Your task to perform on an android device: turn pop-ups on in chrome Image 0: 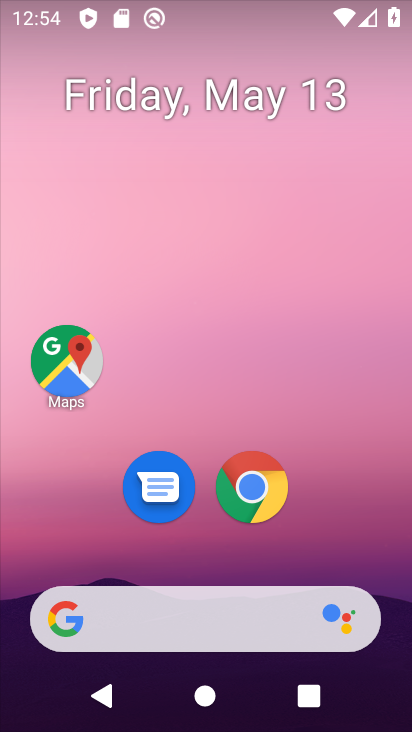
Step 0: drag from (344, 523) to (335, 173)
Your task to perform on an android device: turn pop-ups on in chrome Image 1: 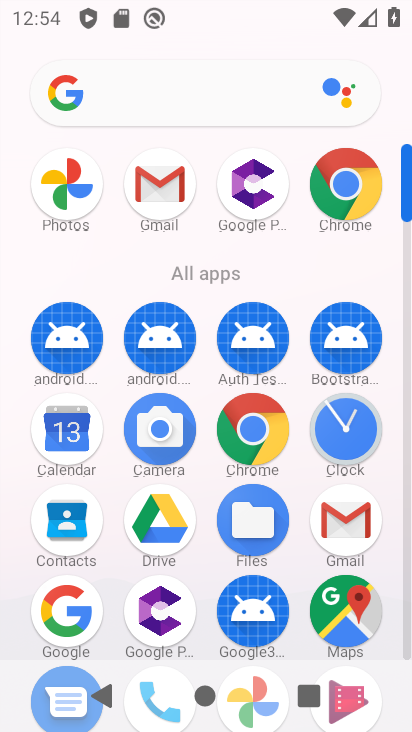
Step 1: click (344, 187)
Your task to perform on an android device: turn pop-ups on in chrome Image 2: 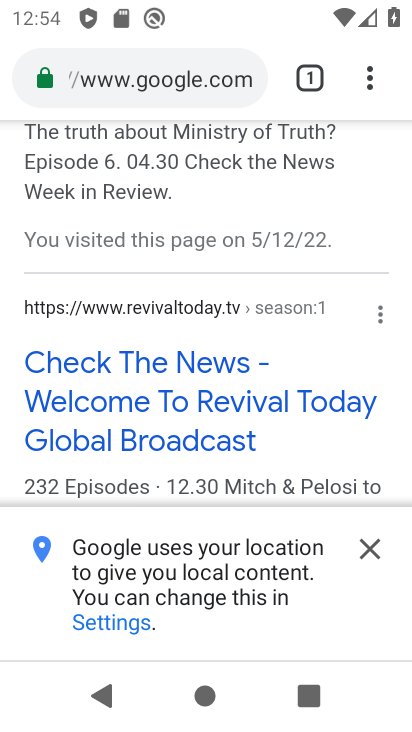
Step 2: drag from (372, 81) to (249, 542)
Your task to perform on an android device: turn pop-ups on in chrome Image 3: 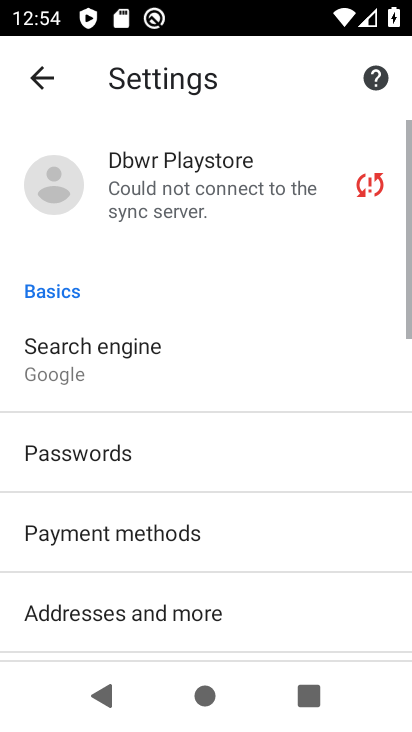
Step 3: drag from (273, 584) to (242, 319)
Your task to perform on an android device: turn pop-ups on in chrome Image 4: 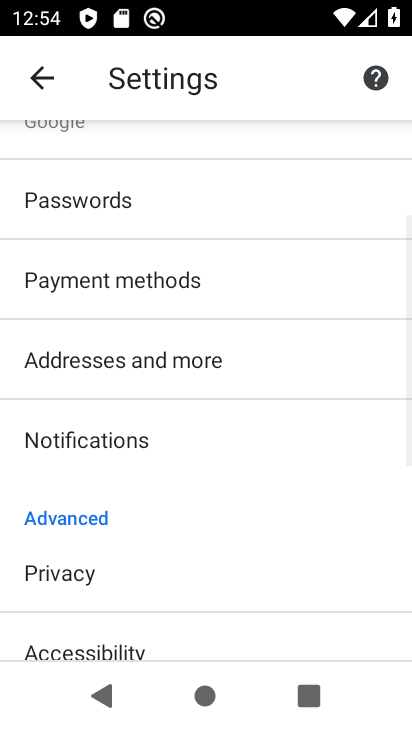
Step 4: drag from (308, 588) to (309, 292)
Your task to perform on an android device: turn pop-ups on in chrome Image 5: 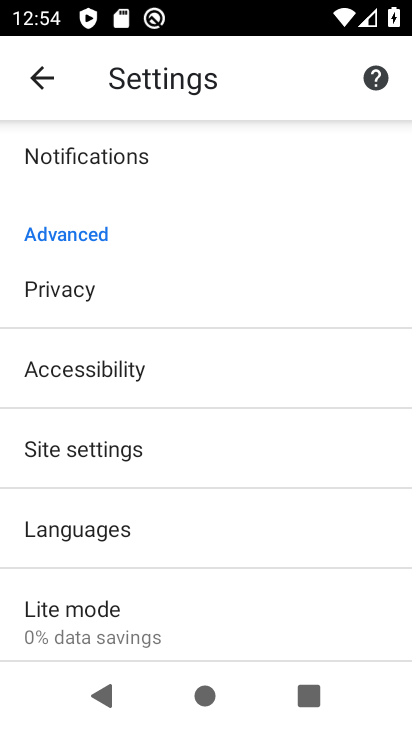
Step 5: drag from (293, 383) to (290, 313)
Your task to perform on an android device: turn pop-ups on in chrome Image 6: 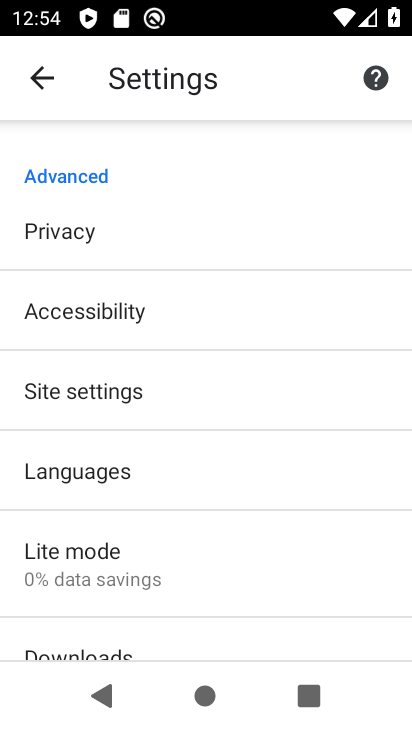
Step 6: click (178, 388)
Your task to perform on an android device: turn pop-ups on in chrome Image 7: 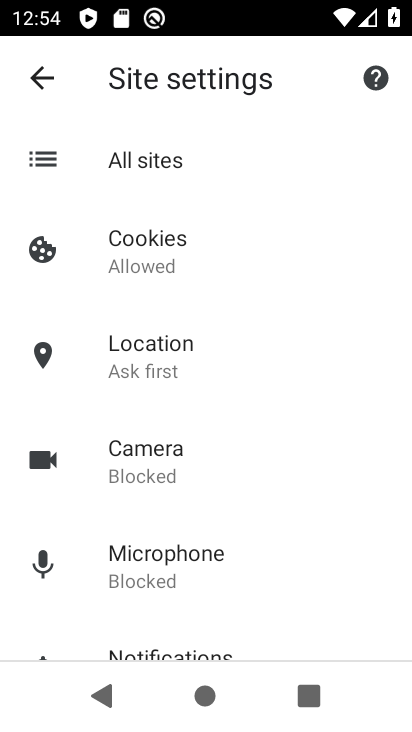
Step 7: drag from (251, 559) to (253, 266)
Your task to perform on an android device: turn pop-ups on in chrome Image 8: 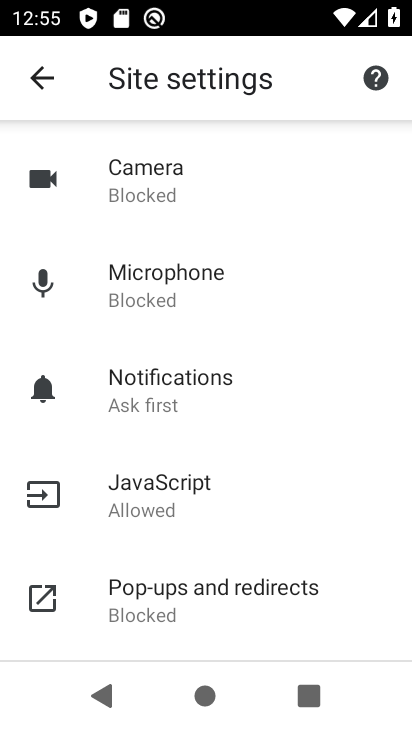
Step 8: drag from (253, 522) to (264, 277)
Your task to perform on an android device: turn pop-ups on in chrome Image 9: 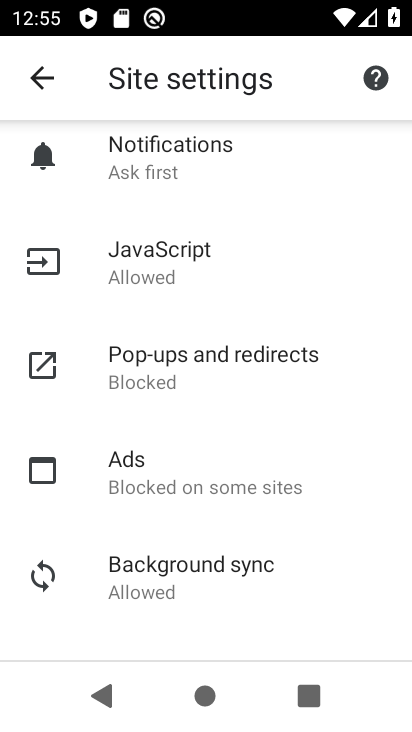
Step 9: click (236, 354)
Your task to perform on an android device: turn pop-ups on in chrome Image 10: 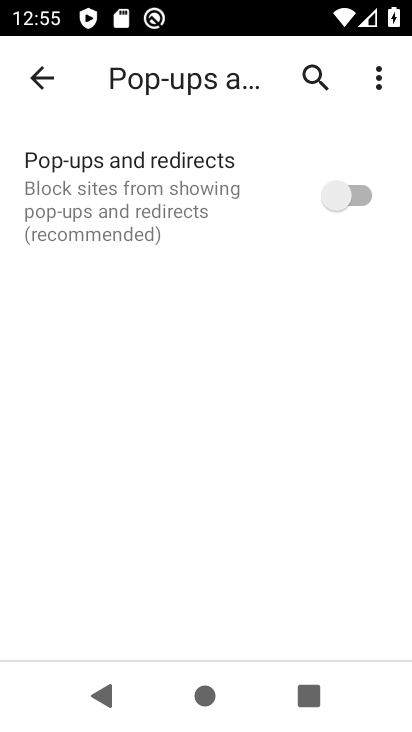
Step 10: click (363, 199)
Your task to perform on an android device: turn pop-ups on in chrome Image 11: 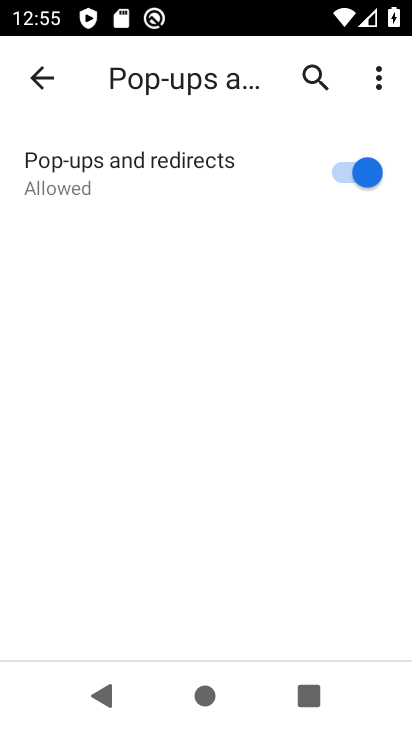
Step 11: task complete